Your task to perform on an android device: star an email in the gmail app Image 0: 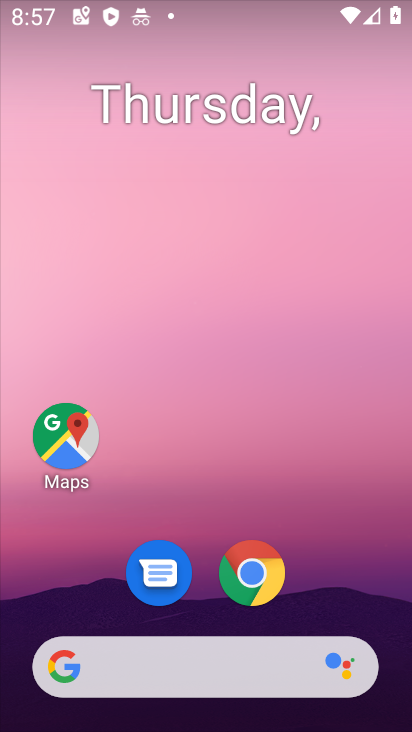
Step 0: drag from (352, 524) to (303, 212)
Your task to perform on an android device: star an email in the gmail app Image 1: 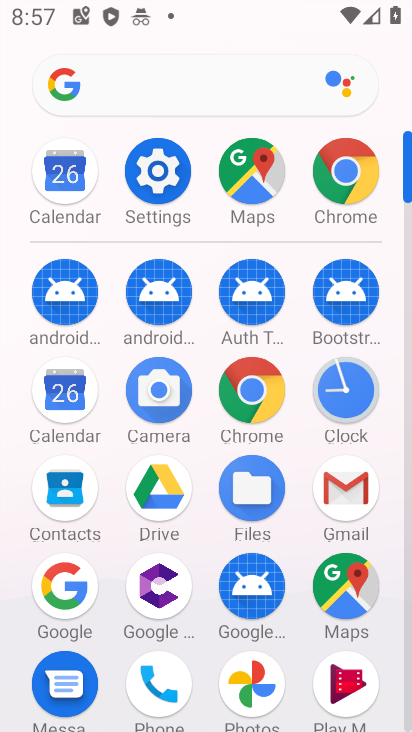
Step 1: click (330, 495)
Your task to perform on an android device: star an email in the gmail app Image 2: 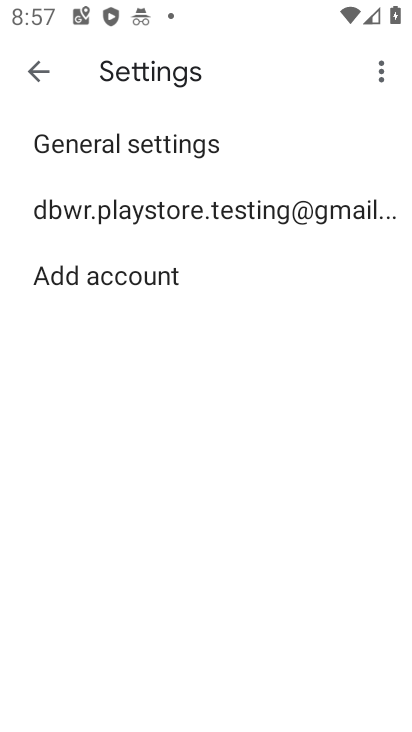
Step 2: click (147, 198)
Your task to perform on an android device: star an email in the gmail app Image 3: 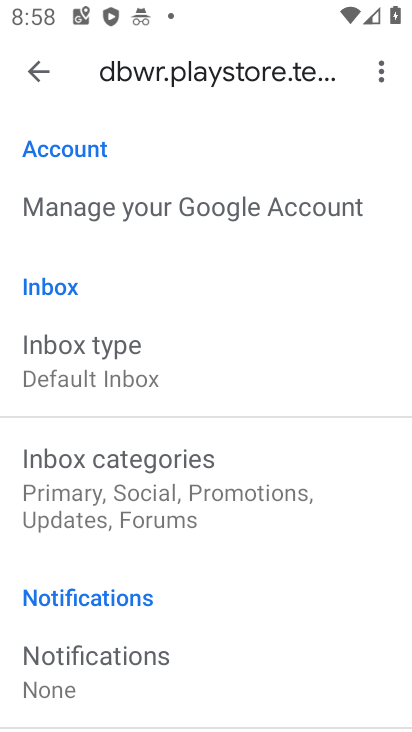
Step 3: click (31, 70)
Your task to perform on an android device: star an email in the gmail app Image 4: 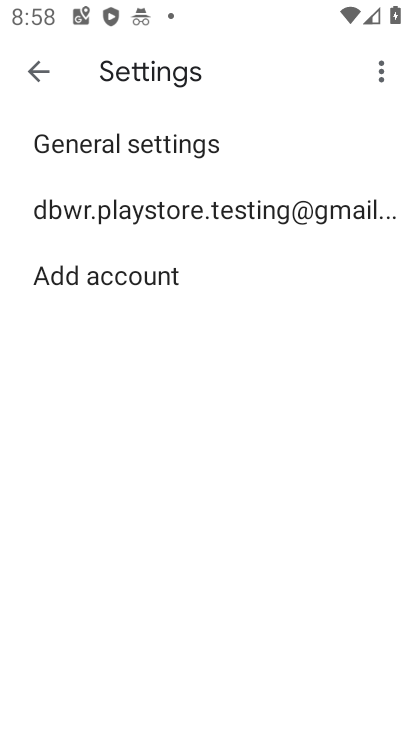
Step 4: click (27, 90)
Your task to perform on an android device: star an email in the gmail app Image 5: 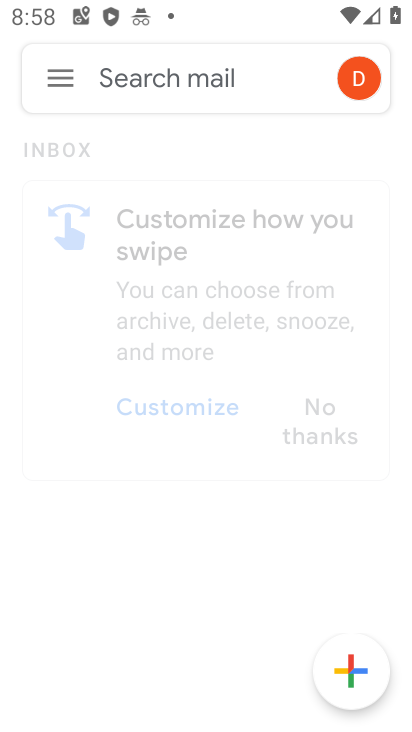
Step 5: click (77, 74)
Your task to perform on an android device: star an email in the gmail app Image 6: 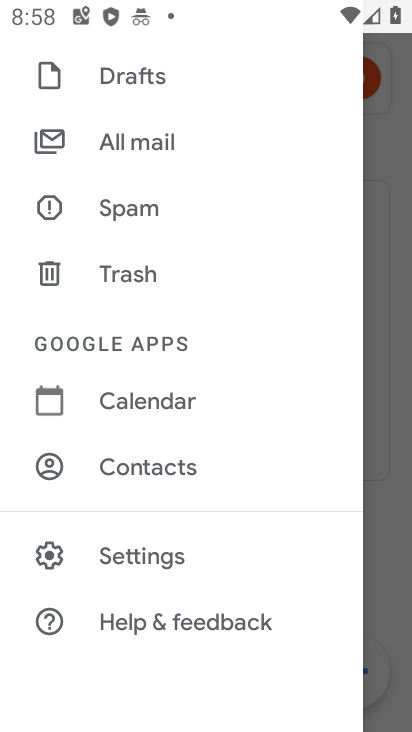
Step 6: click (149, 158)
Your task to perform on an android device: star an email in the gmail app Image 7: 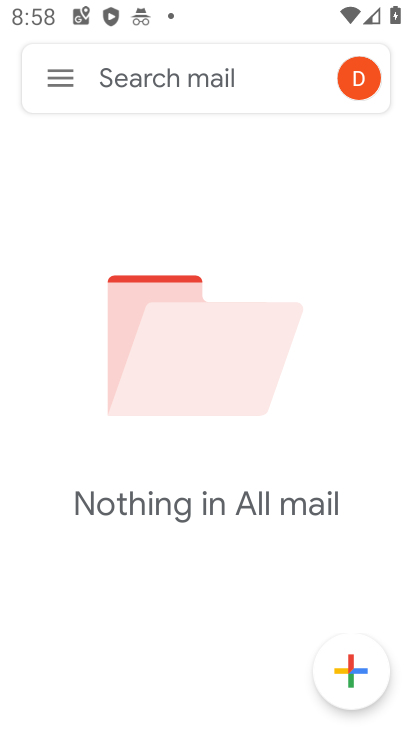
Step 7: task complete